Your task to perform on an android device: turn off priority inbox in the gmail app Image 0: 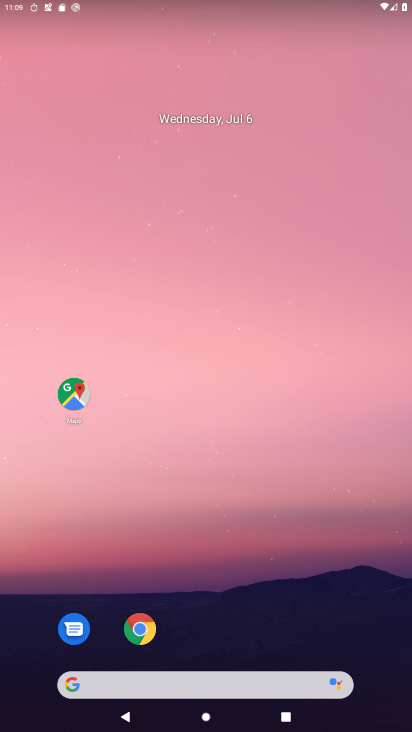
Step 0: drag from (218, 215) to (228, 9)
Your task to perform on an android device: turn off priority inbox in the gmail app Image 1: 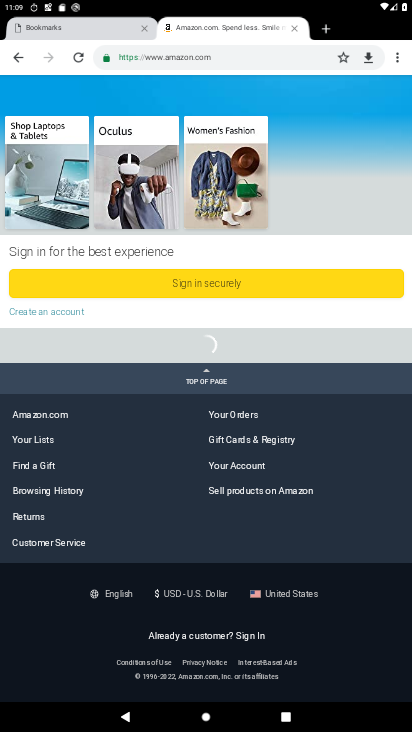
Step 1: press home button
Your task to perform on an android device: turn off priority inbox in the gmail app Image 2: 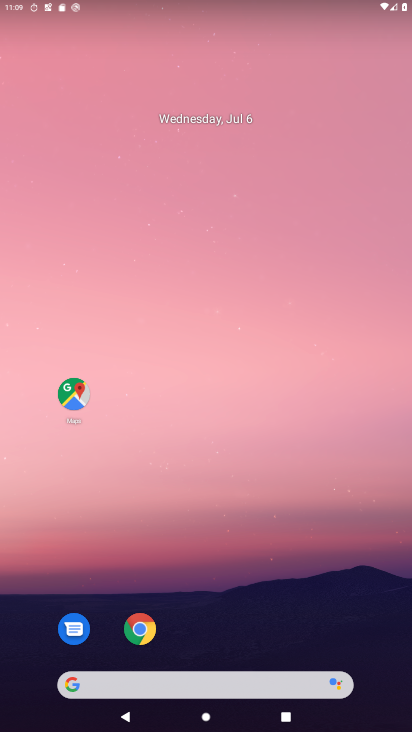
Step 2: drag from (215, 641) to (241, 1)
Your task to perform on an android device: turn off priority inbox in the gmail app Image 3: 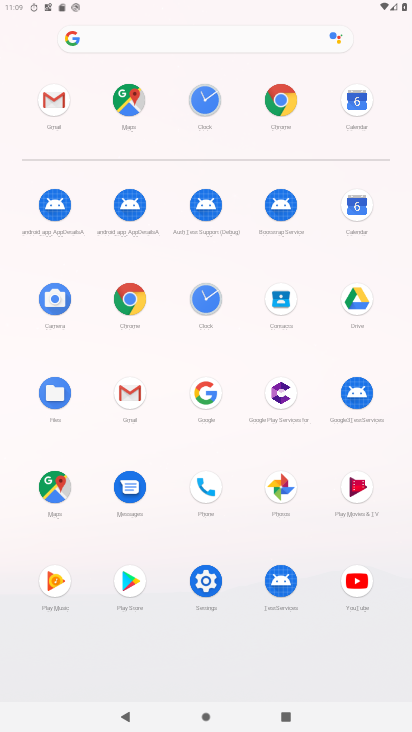
Step 3: click (50, 93)
Your task to perform on an android device: turn off priority inbox in the gmail app Image 4: 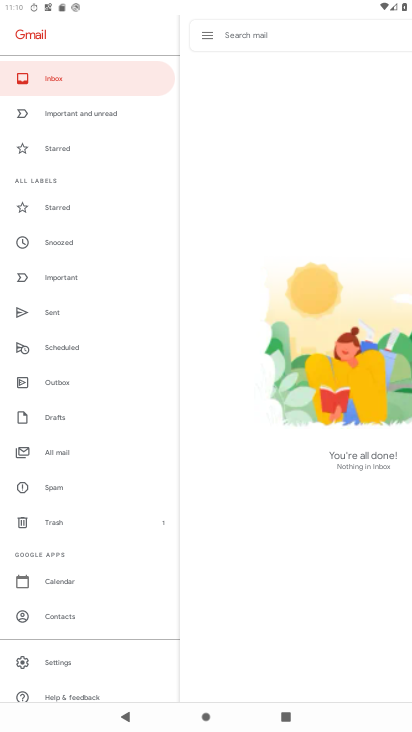
Step 4: click (63, 669)
Your task to perform on an android device: turn off priority inbox in the gmail app Image 5: 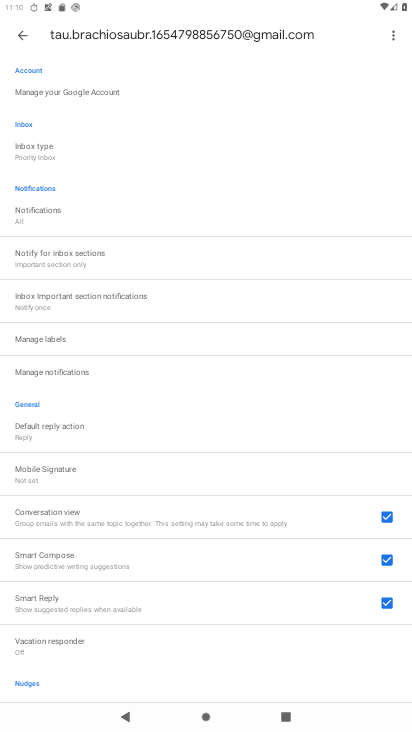
Step 5: click (71, 152)
Your task to perform on an android device: turn off priority inbox in the gmail app Image 6: 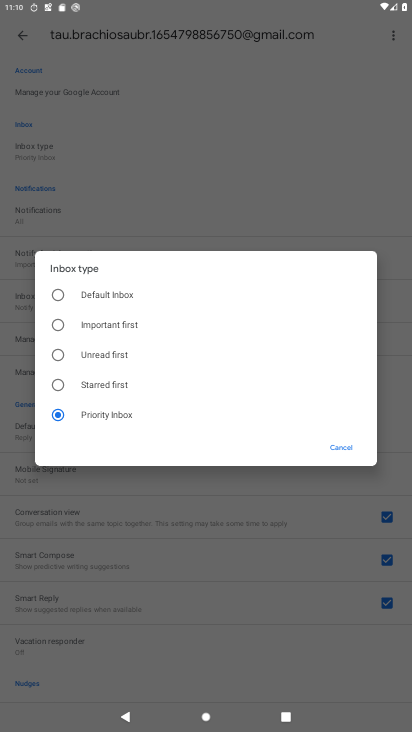
Step 6: click (60, 385)
Your task to perform on an android device: turn off priority inbox in the gmail app Image 7: 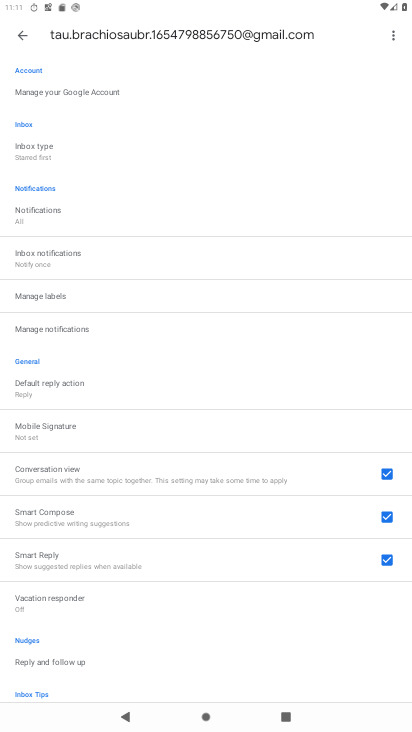
Step 7: task complete